Your task to perform on an android device: check out phone information Image 0: 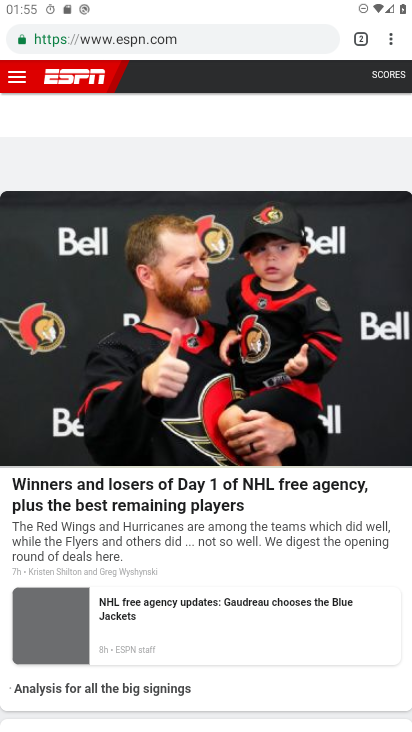
Step 0: press home button
Your task to perform on an android device: check out phone information Image 1: 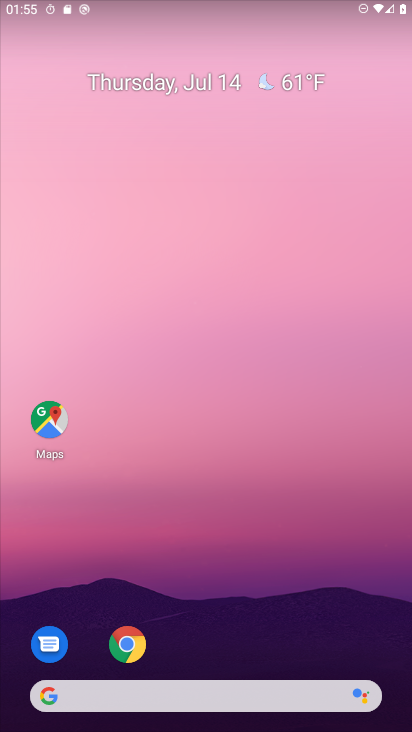
Step 1: drag from (276, 601) to (276, 43)
Your task to perform on an android device: check out phone information Image 2: 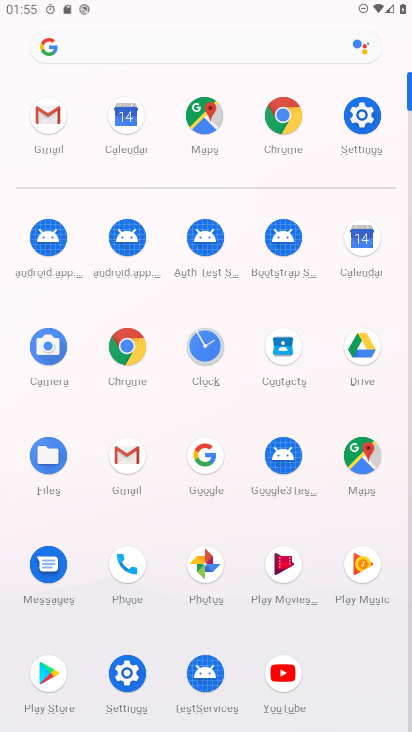
Step 2: click (137, 565)
Your task to perform on an android device: check out phone information Image 3: 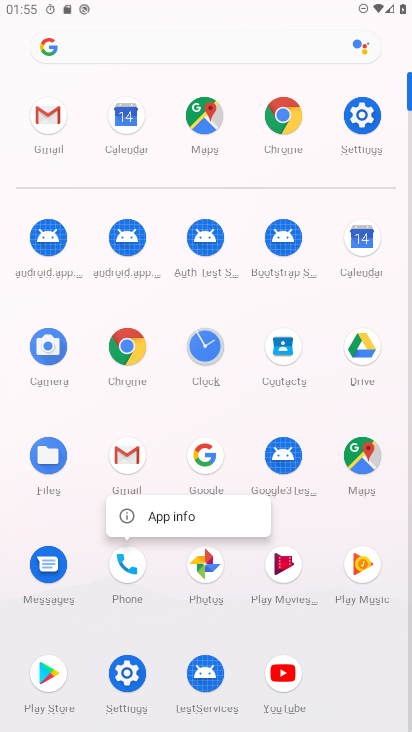
Step 3: click (209, 513)
Your task to perform on an android device: check out phone information Image 4: 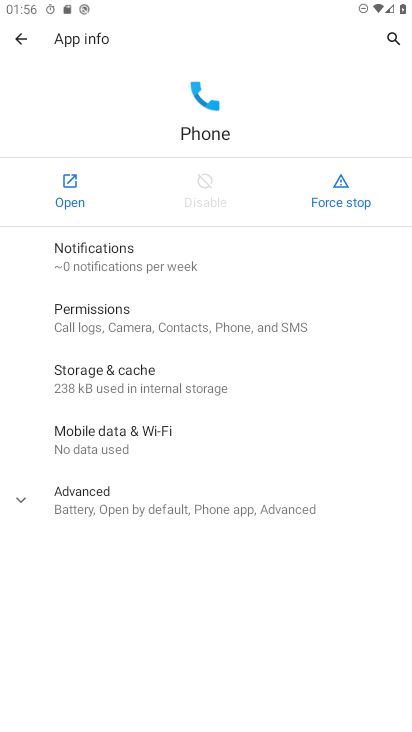
Step 4: task complete